Your task to perform on an android device: What's the weather going to be tomorrow? Image 0: 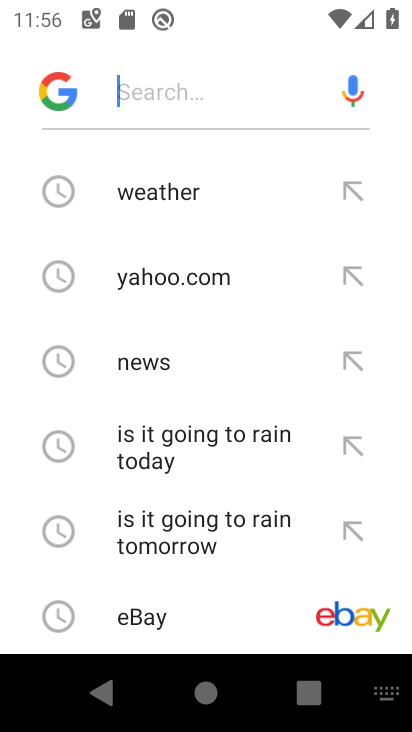
Step 0: press back button
Your task to perform on an android device: What's the weather going to be tomorrow? Image 1: 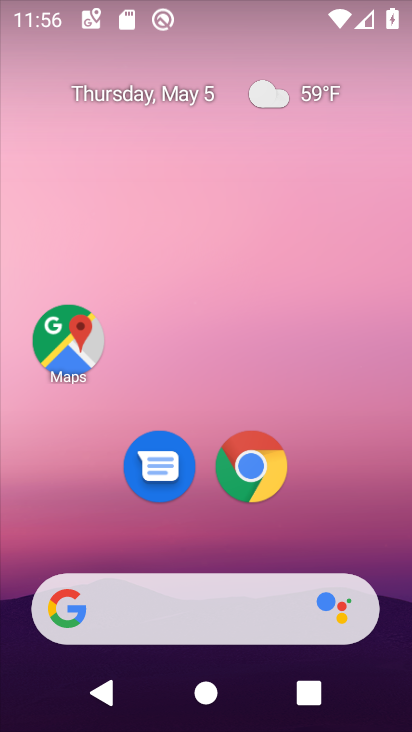
Step 1: drag from (357, 509) to (324, 152)
Your task to perform on an android device: What's the weather going to be tomorrow? Image 2: 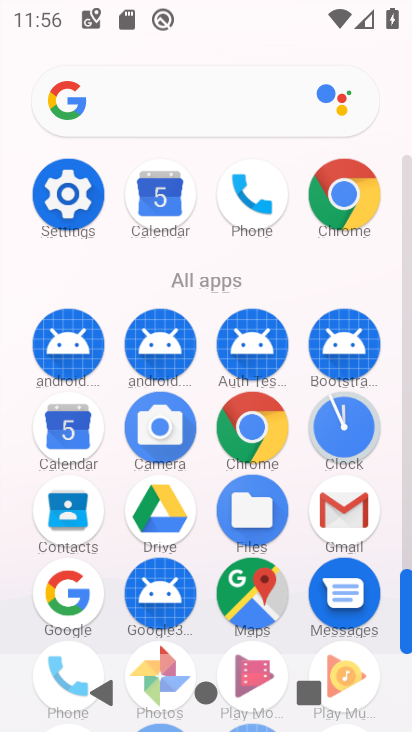
Step 2: click (347, 200)
Your task to perform on an android device: What's the weather going to be tomorrow? Image 3: 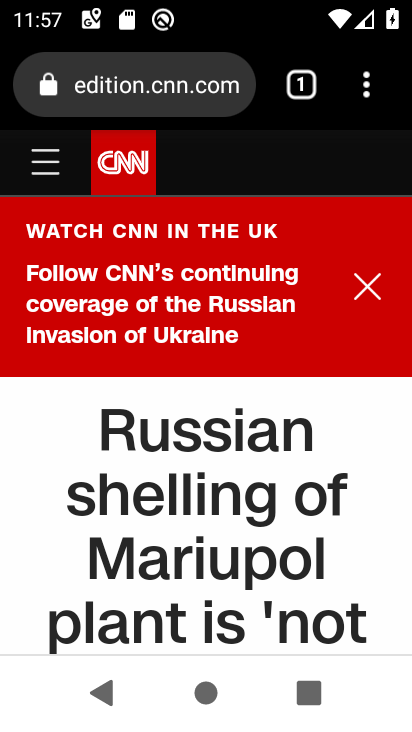
Step 3: click (207, 86)
Your task to perform on an android device: What's the weather going to be tomorrow? Image 4: 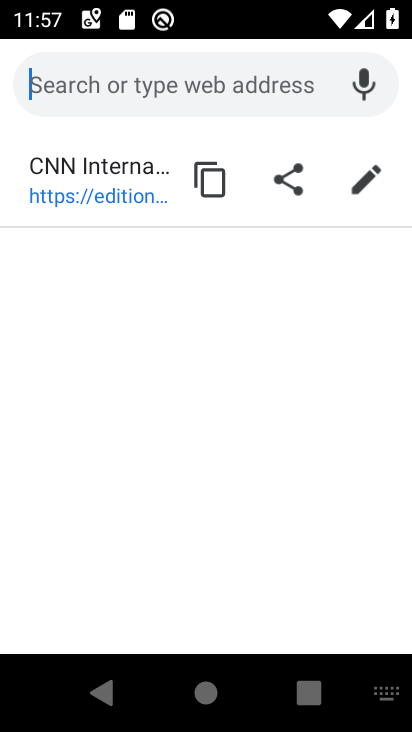
Step 4: type "What's the weather going to be tomorrow?"
Your task to perform on an android device: What's the weather going to be tomorrow? Image 5: 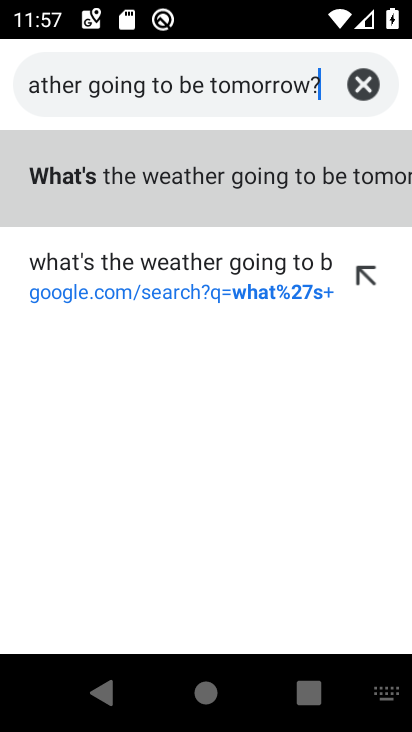
Step 5: click (135, 164)
Your task to perform on an android device: What's the weather going to be tomorrow? Image 6: 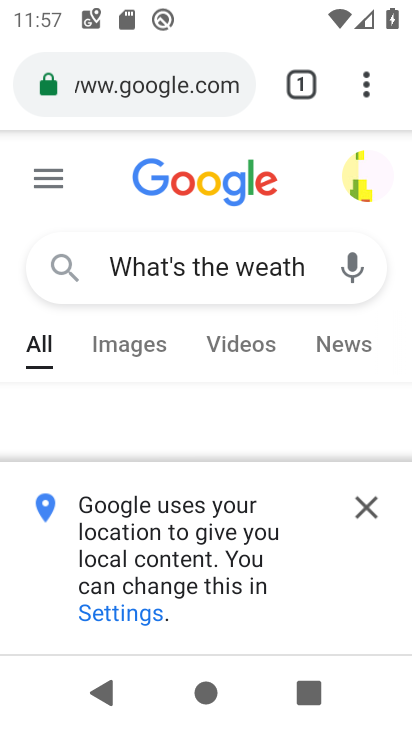
Step 6: click (363, 500)
Your task to perform on an android device: What's the weather going to be tomorrow? Image 7: 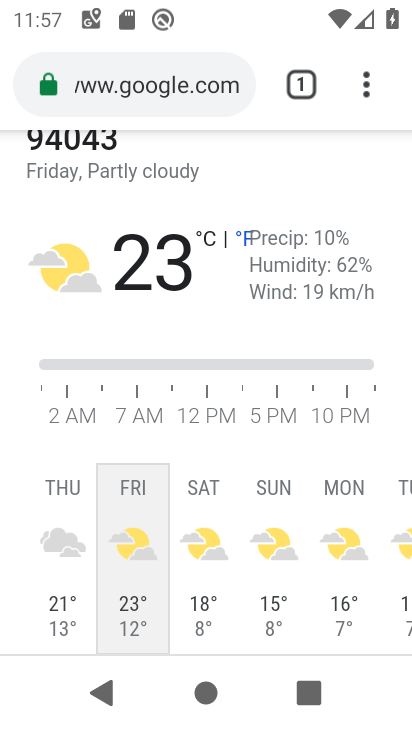
Step 7: drag from (325, 532) to (303, 245)
Your task to perform on an android device: What's the weather going to be tomorrow? Image 8: 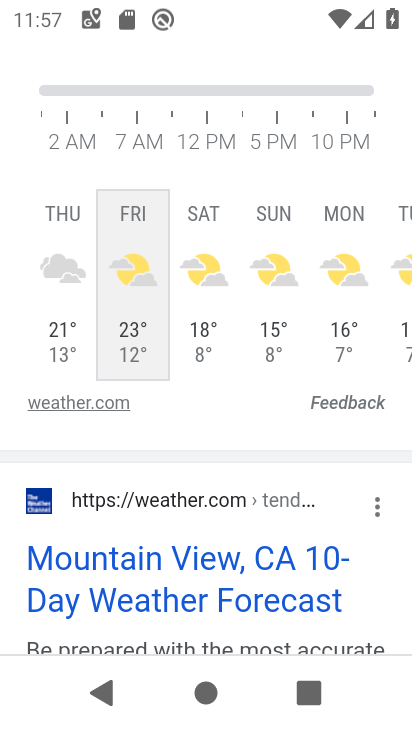
Step 8: click (205, 221)
Your task to perform on an android device: What's the weather going to be tomorrow? Image 9: 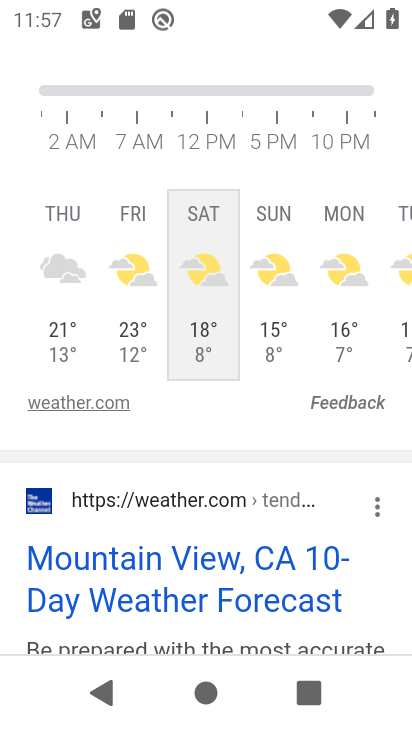
Step 9: task complete